Your task to perform on an android device: Search for pizza restaurants on Maps Image 0: 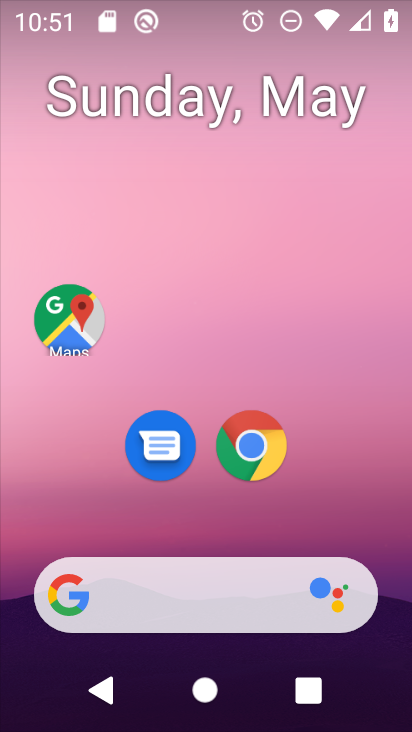
Step 0: drag from (226, 632) to (222, 108)
Your task to perform on an android device: Search for pizza restaurants on Maps Image 1: 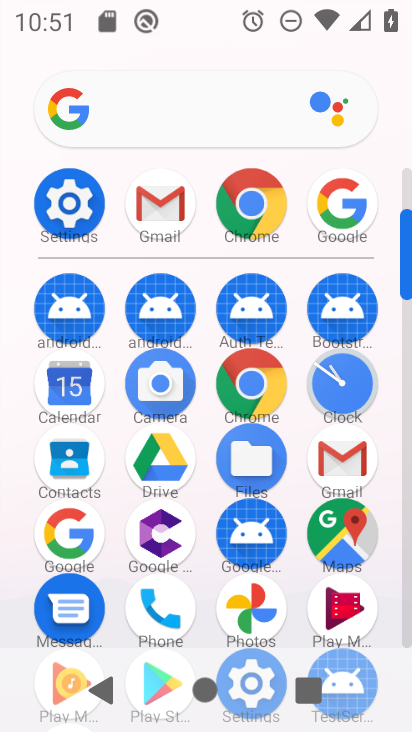
Step 1: click (331, 531)
Your task to perform on an android device: Search for pizza restaurants on Maps Image 2: 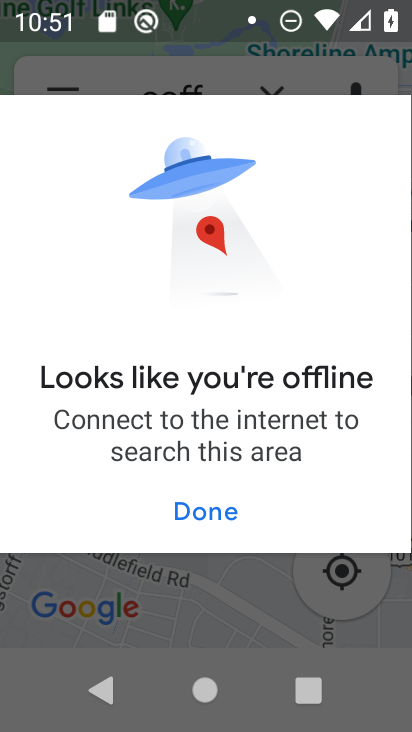
Step 2: click (195, 506)
Your task to perform on an android device: Search for pizza restaurants on Maps Image 3: 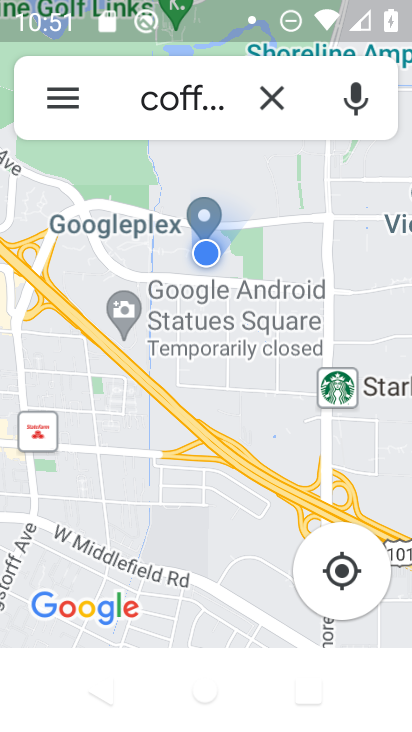
Step 3: click (274, 97)
Your task to perform on an android device: Search for pizza restaurants on Maps Image 4: 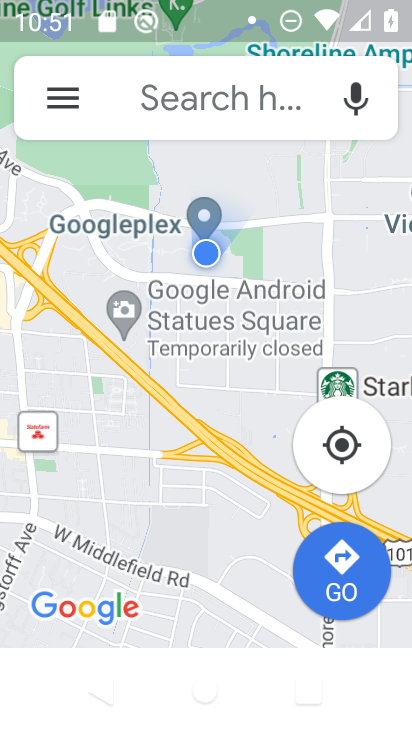
Step 4: click (252, 109)
Your task to perform on an android device: Search for pizza restaurants on Maps Image 5: 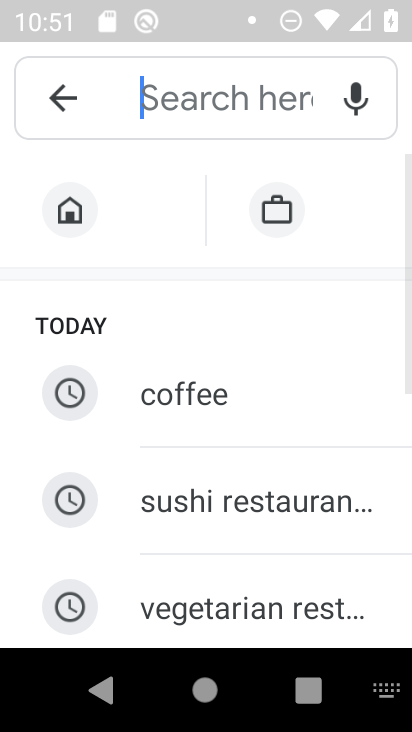
Step 5: drag from (257, 536) to (283, 107)
Your task to perform on an android device: Search for pizza restaurants on Maps Image 6: 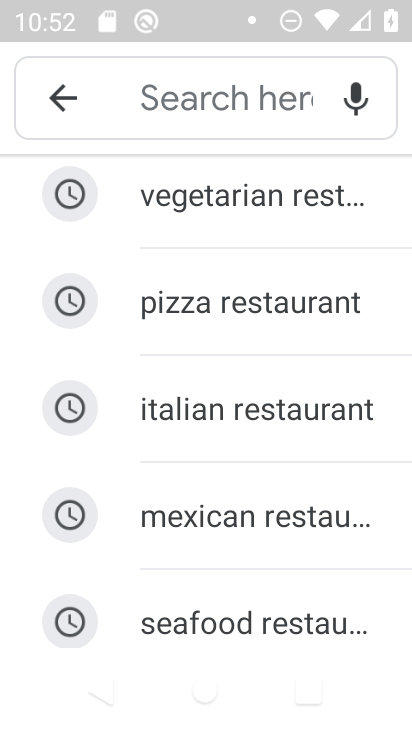
Step 6: click (224, 307)
Your task to perform on an android device: Search for pizza restaurants on Maps Image 7: 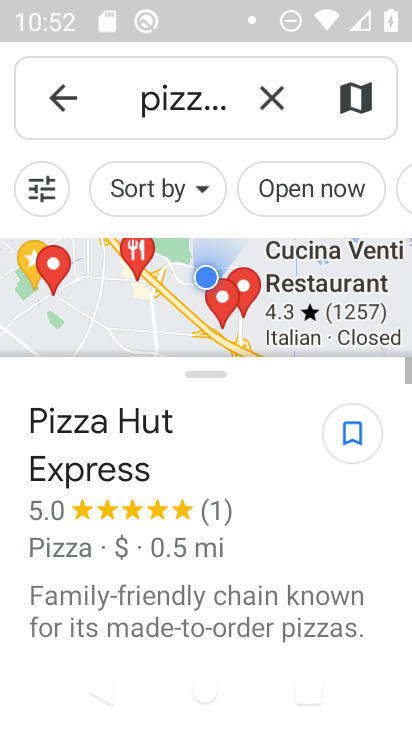
Step 7: task complete